Your task to perform on an android device: turn on priority inbox in the gmail app Image 0: 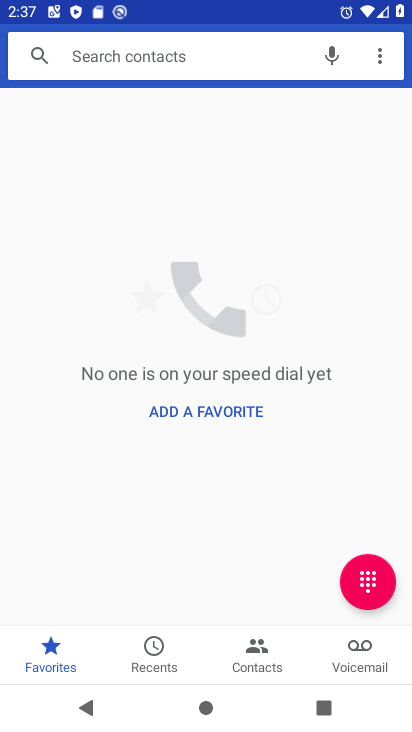
Step 0: press home button
Your task to perform on an android device: turn on priority inbox in the gmail app Image 1: 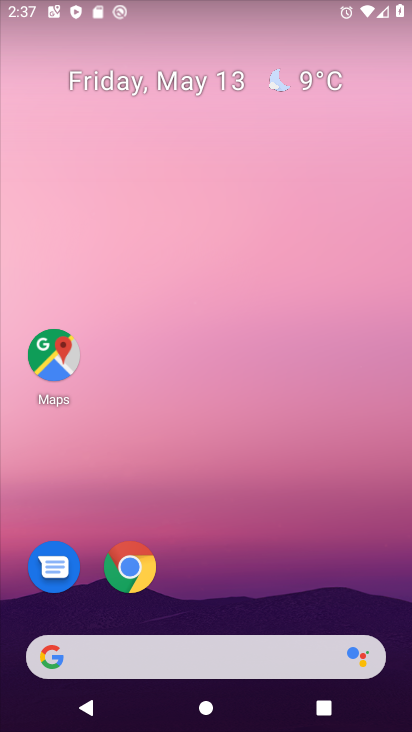
Step 1: drag from (179, 560) to (260, 73)
Your task to perform on an android device: turn on priority inbox in the gmail app Image 2: 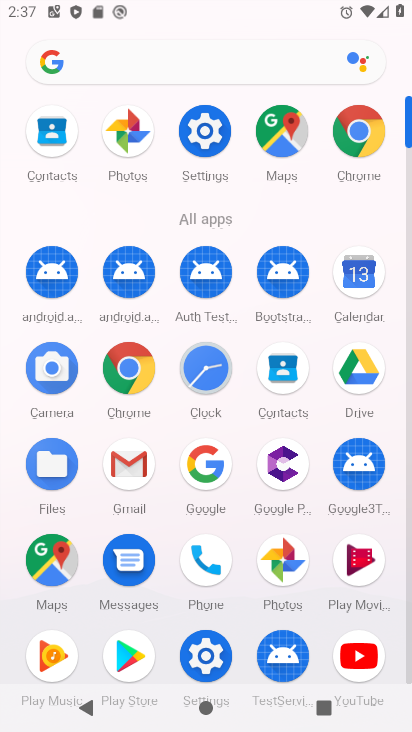
Step 2: click (121, 459)
Your task to perform on an android device: turn on priority inbox in the gmail app Image 3: 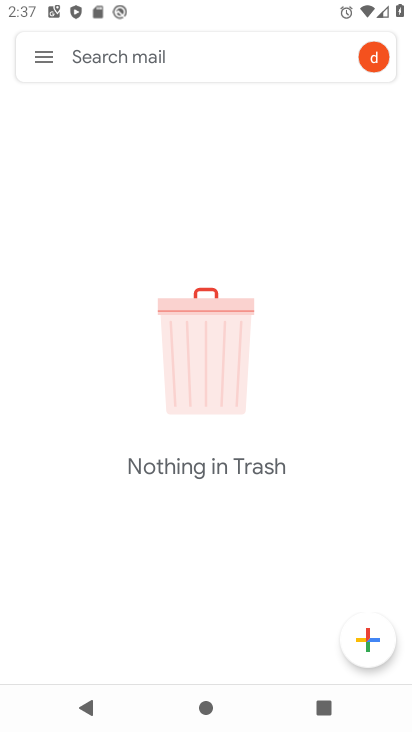
Step 3: click (42, 48)
Your task to perform on an android device: turn on priority inbox in the gmail app Image 4: 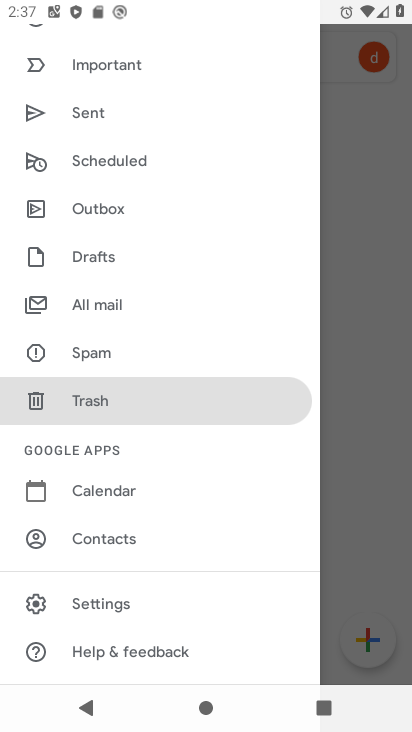
Step 4: click (113, 604)
Your task to perform on an android device: turn on priority inbox in the gmail app Image 5: 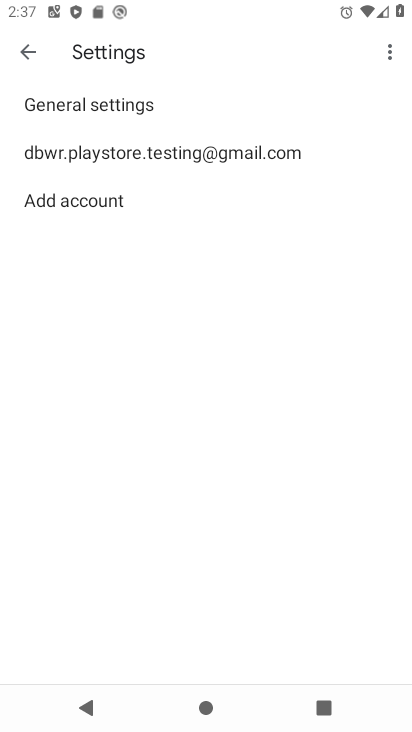
Step 5: click (120, 158)
Your task to perform on an android device: turn on priority inbox in the gmail app Image 6: 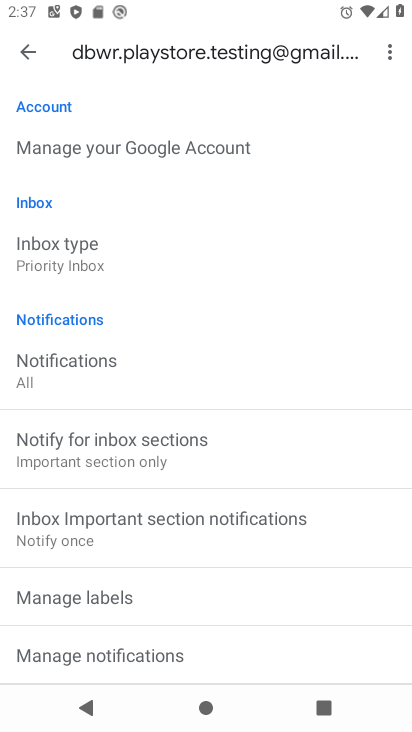
Step 6: click (86, 258)
Your task to perform on an android device: turn on priority inbox in the gmail app Image 7: 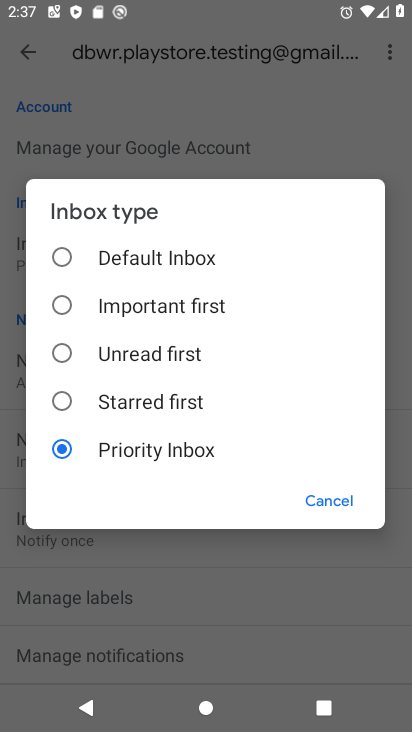
Step 7: task complete